Your task to perform on an android device: Search for "usb-b" on ebay, select the first entry, and add it to the cart. Image 0: 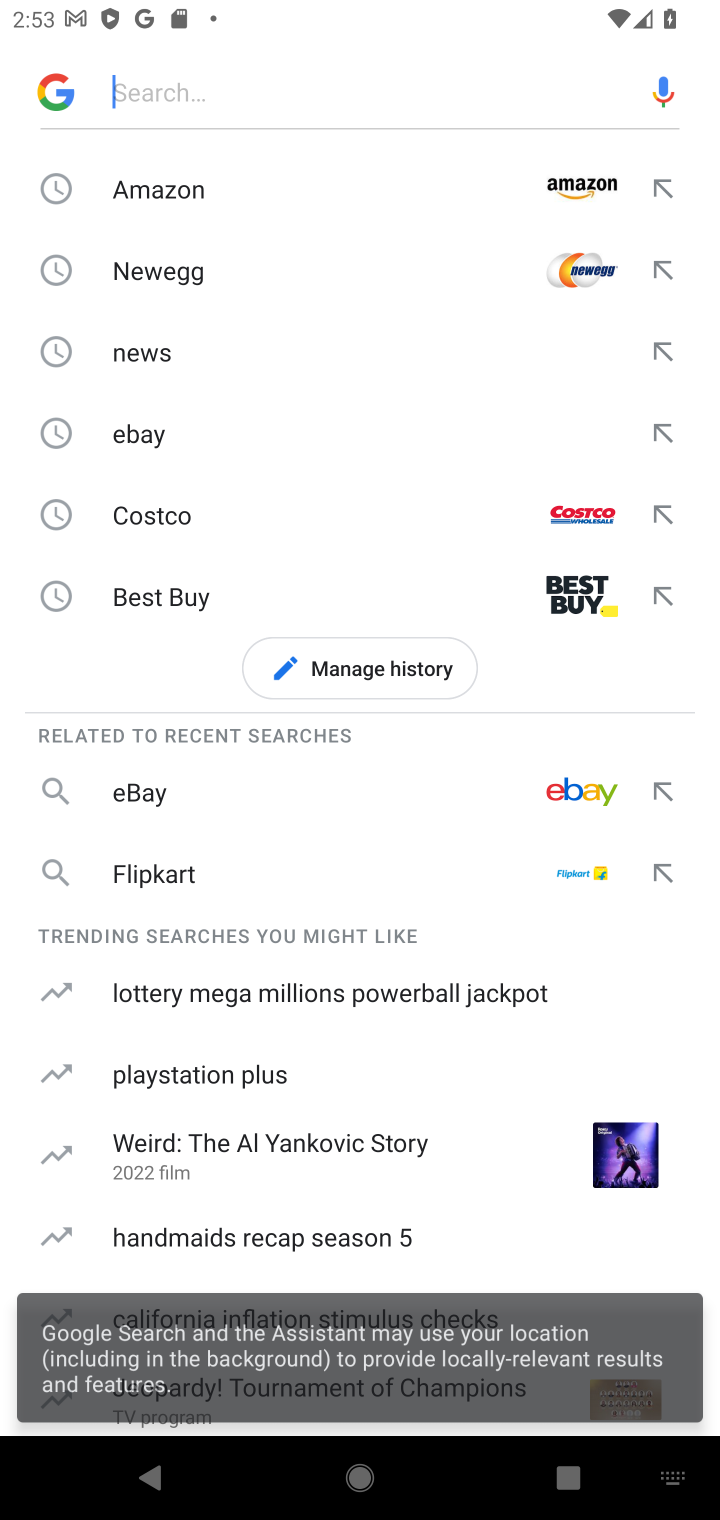
Step 0: press home button
Your task to perform on an android device: Search for "usb-b" on ebay, select the first entry, and add it to the cart. Image 1: 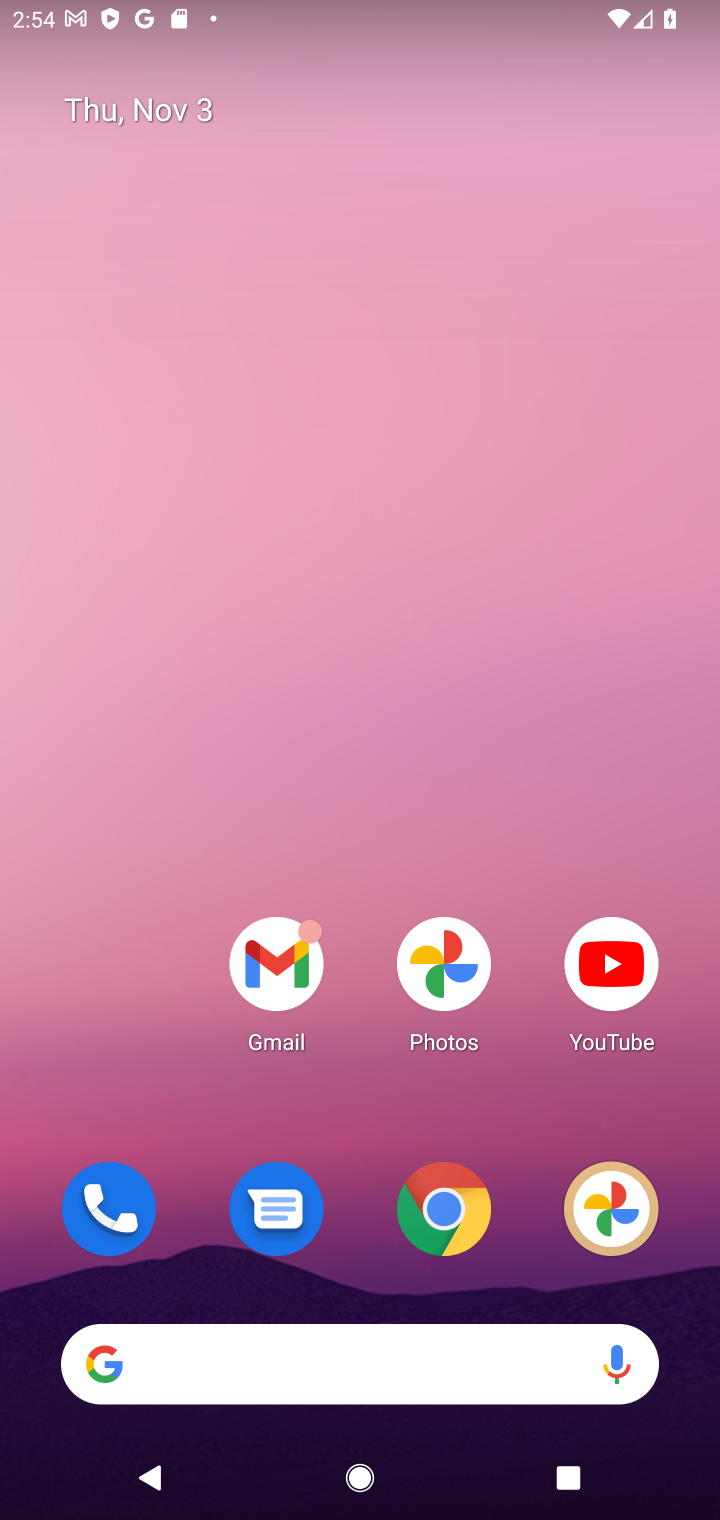
Step 1: click (460, 1199)
Your task to perform on an android device: Search for "usb-b" on ebay, select the first entry, and add it to the cart. Image 2: 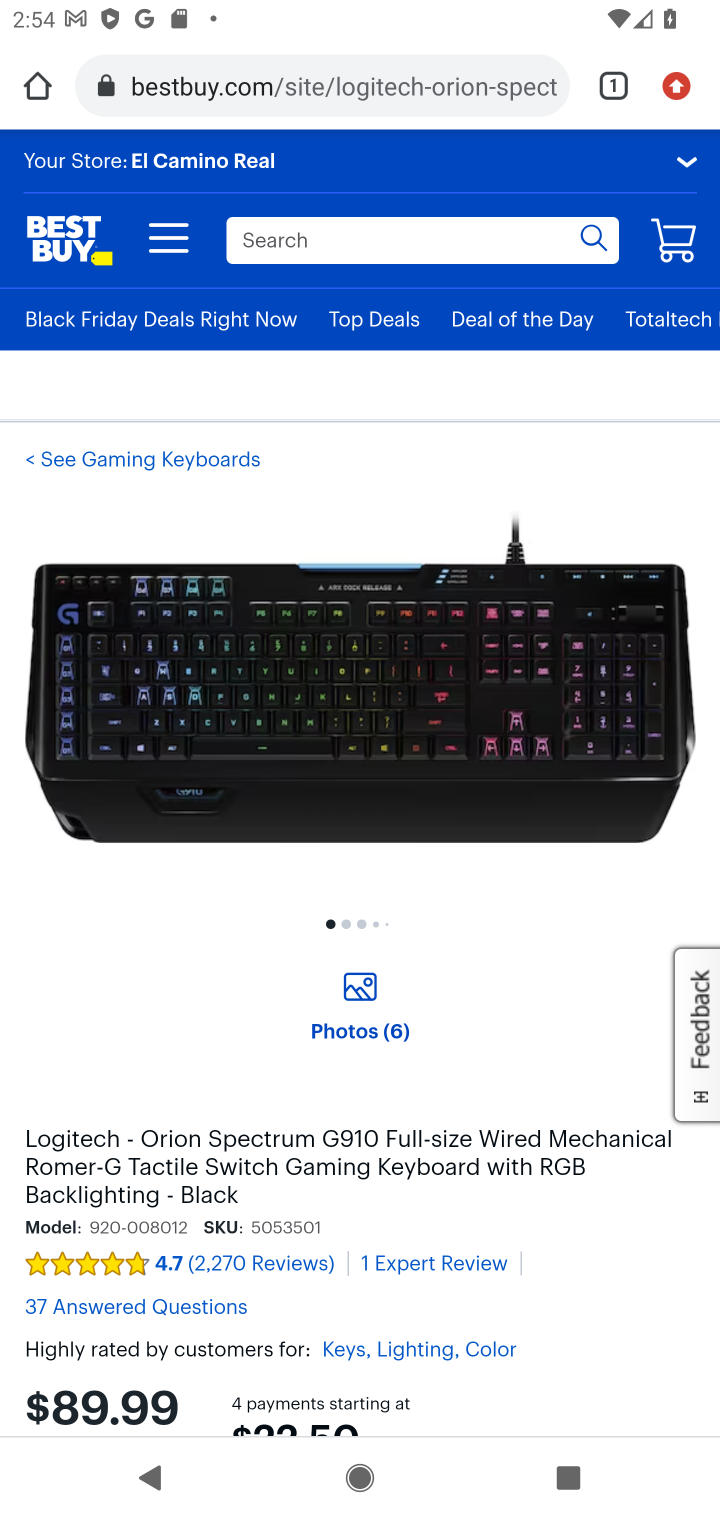
Step 2: click (431, 1217)
Your task to perform on an android device: Search for "usb-b" on ebay, select the first entry, and add it to the cart. Image 3: 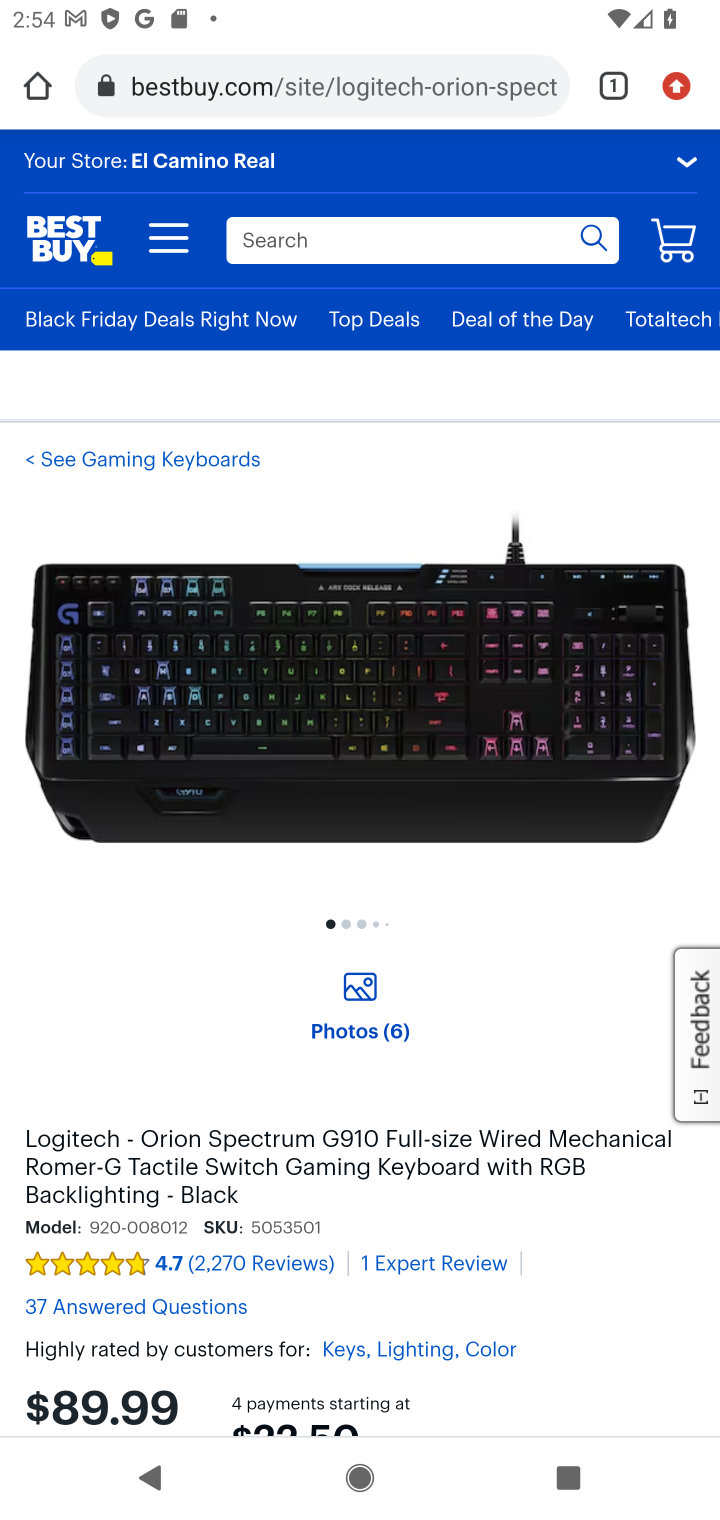
Step 3: click (340, 79)
Your task to perform on an android device: Search for "usb-b" on ebay, select the first entry, and add it to the cart. Image 4: 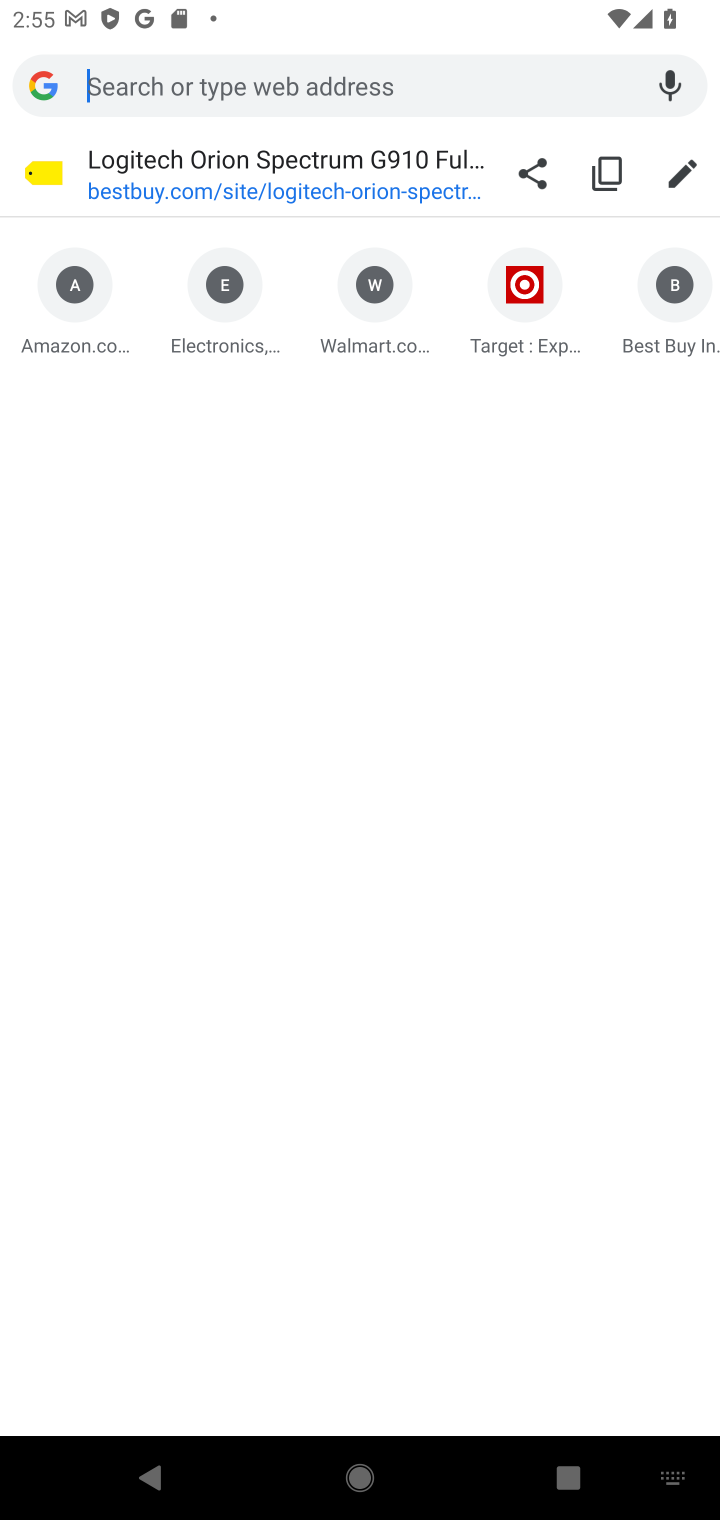
Step 4: type "ebay"
Your task to perform on an android device: Search for "usb-b" on ebay, select the first entry, and add it to the cart. Image 5: 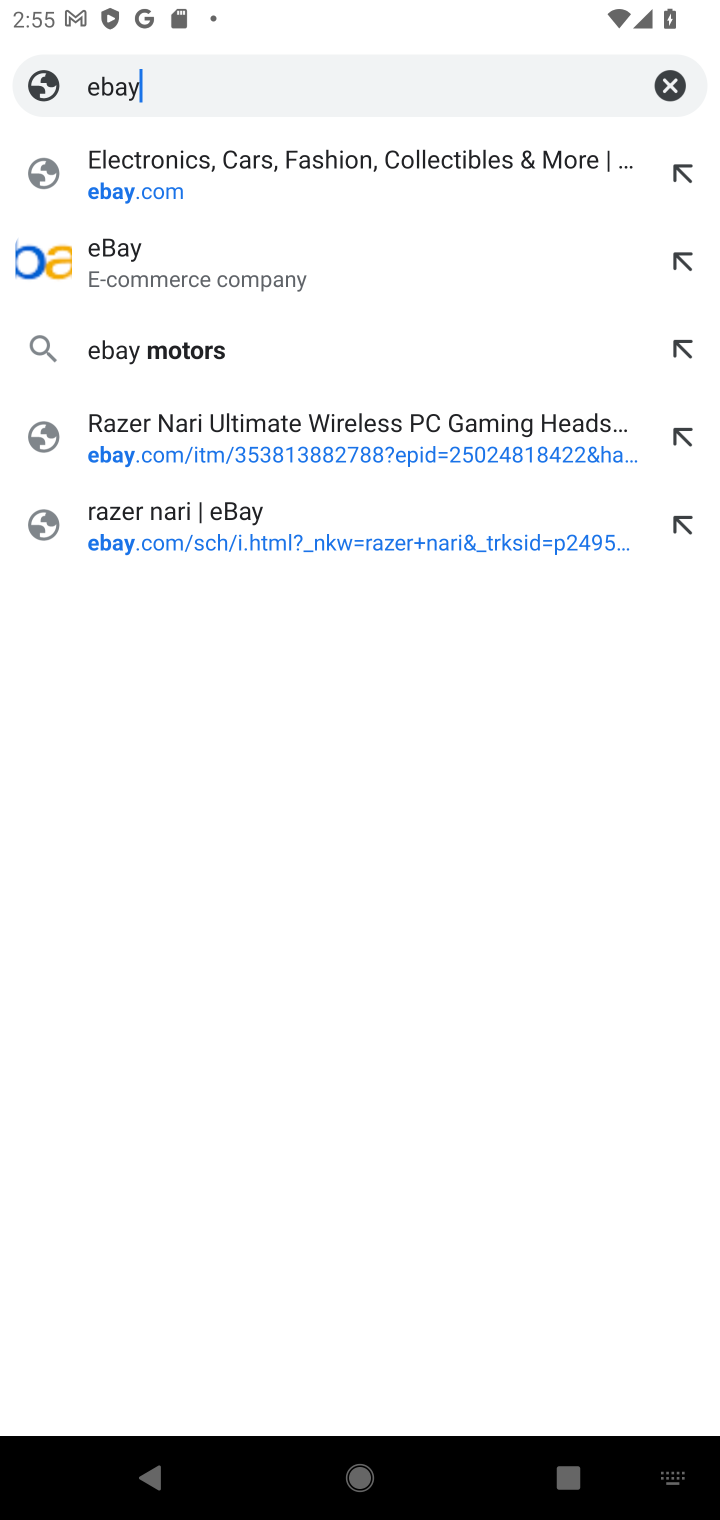
Step 5: click (200, 182)
Your task to perform on an android device: Search for "usb-b" on ebay, select the first entry, and add it to the cart. Image 6: 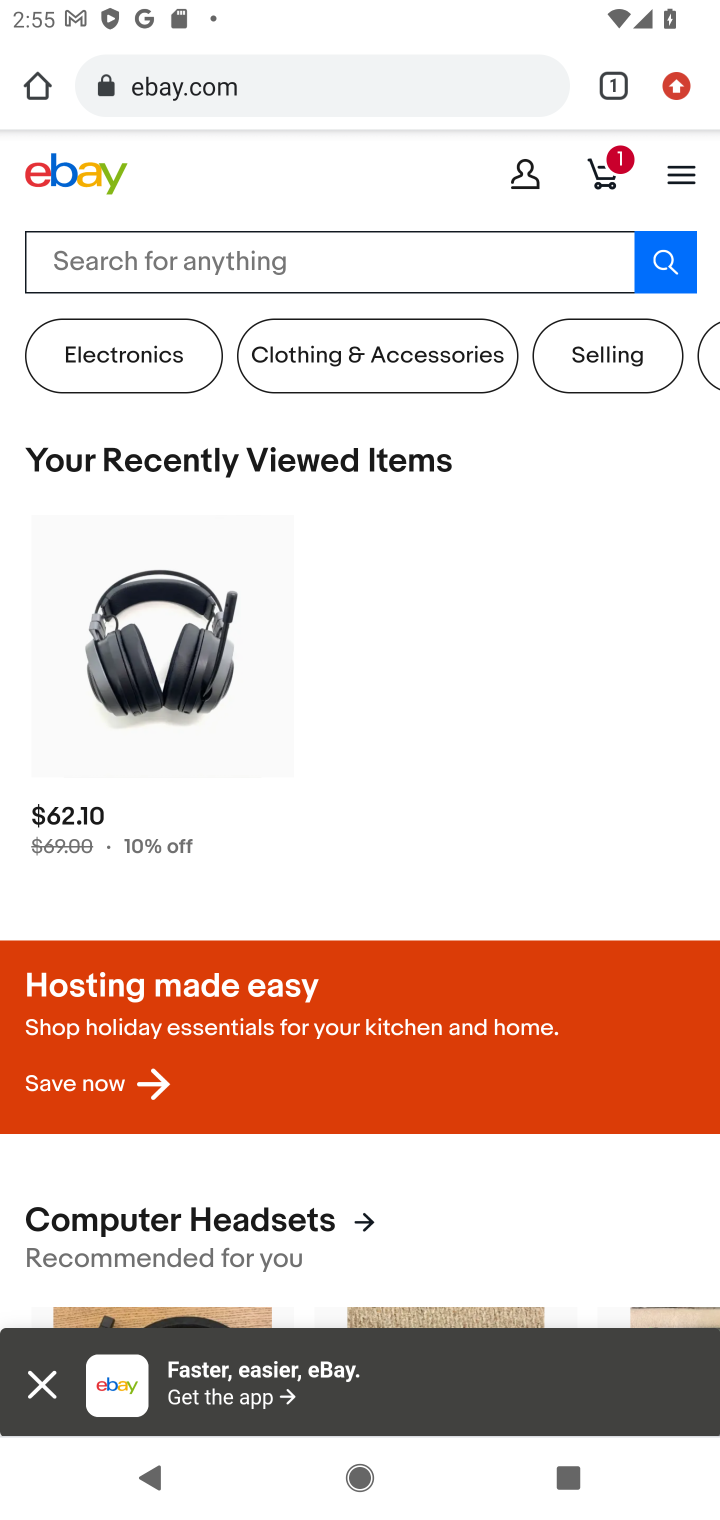
Step 6: click (405, 259)
Your task to perform on an android device: Search for "usb-b" on ebay, select the first entry, and add it to the cart. Image 7: 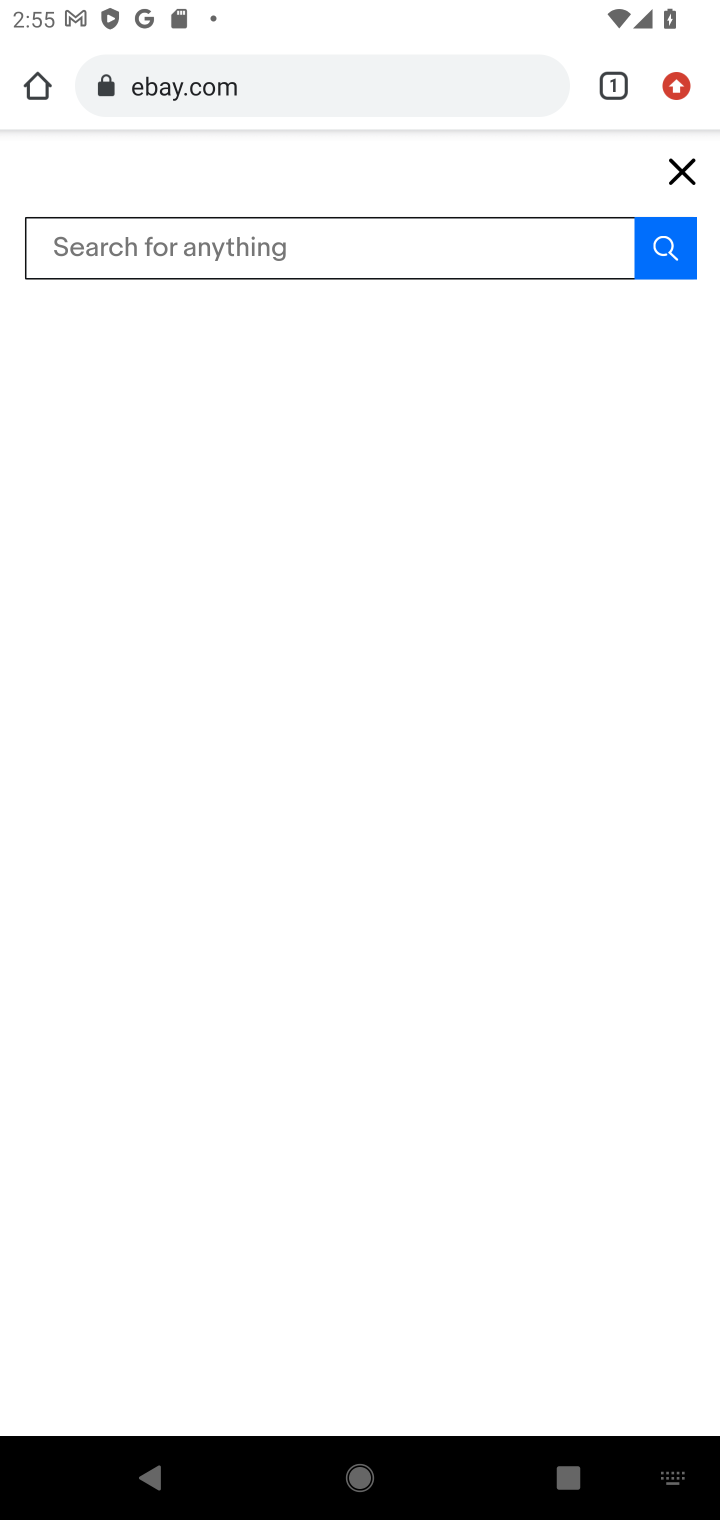
Step 7: type "usb-b"
Your task to perform on an android device: Search for "usb-b" on ebay, select the first entry, and add it to the cart. Image 8: 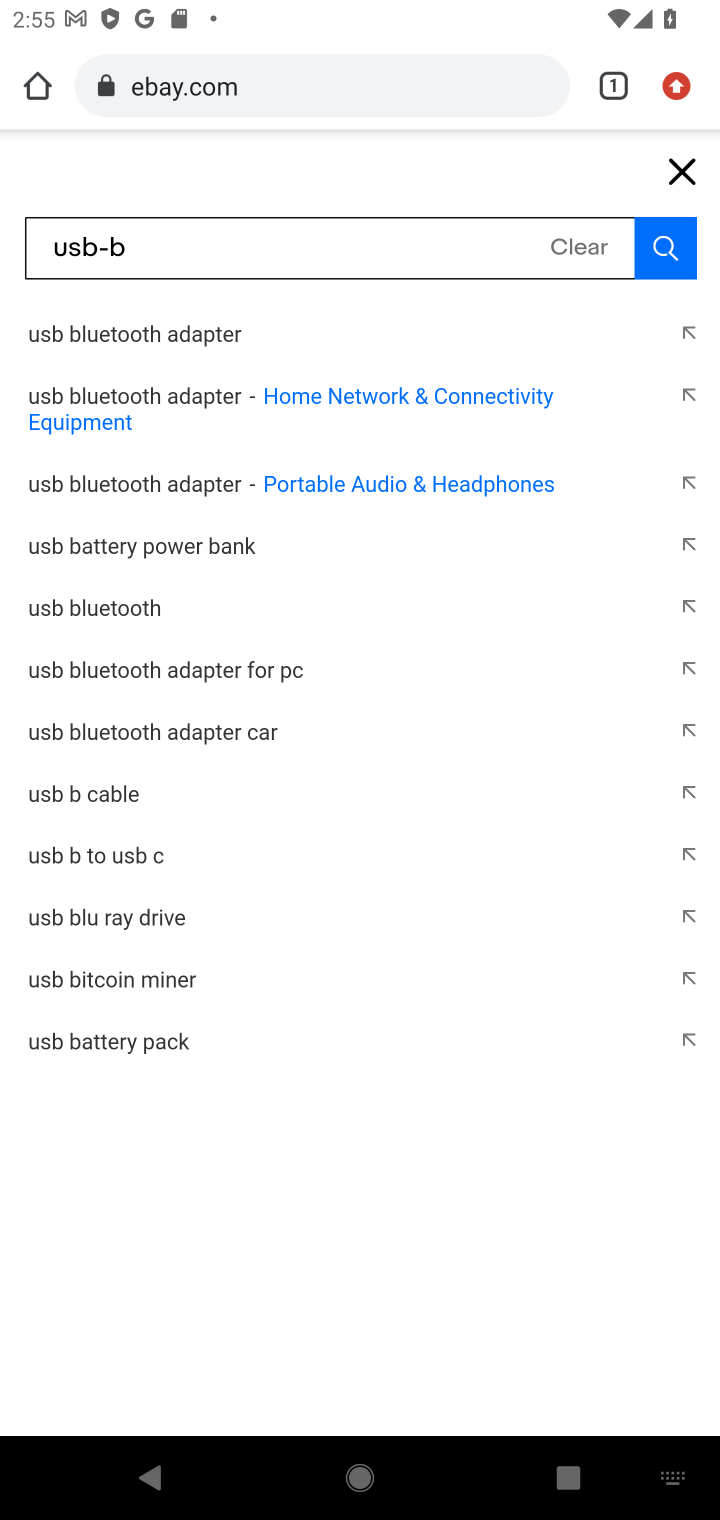
Step 8: press enter
Your task to perform on an android device: Search for "usb-b" on ebay, select the first entry, and add it to the cart. Image 9: 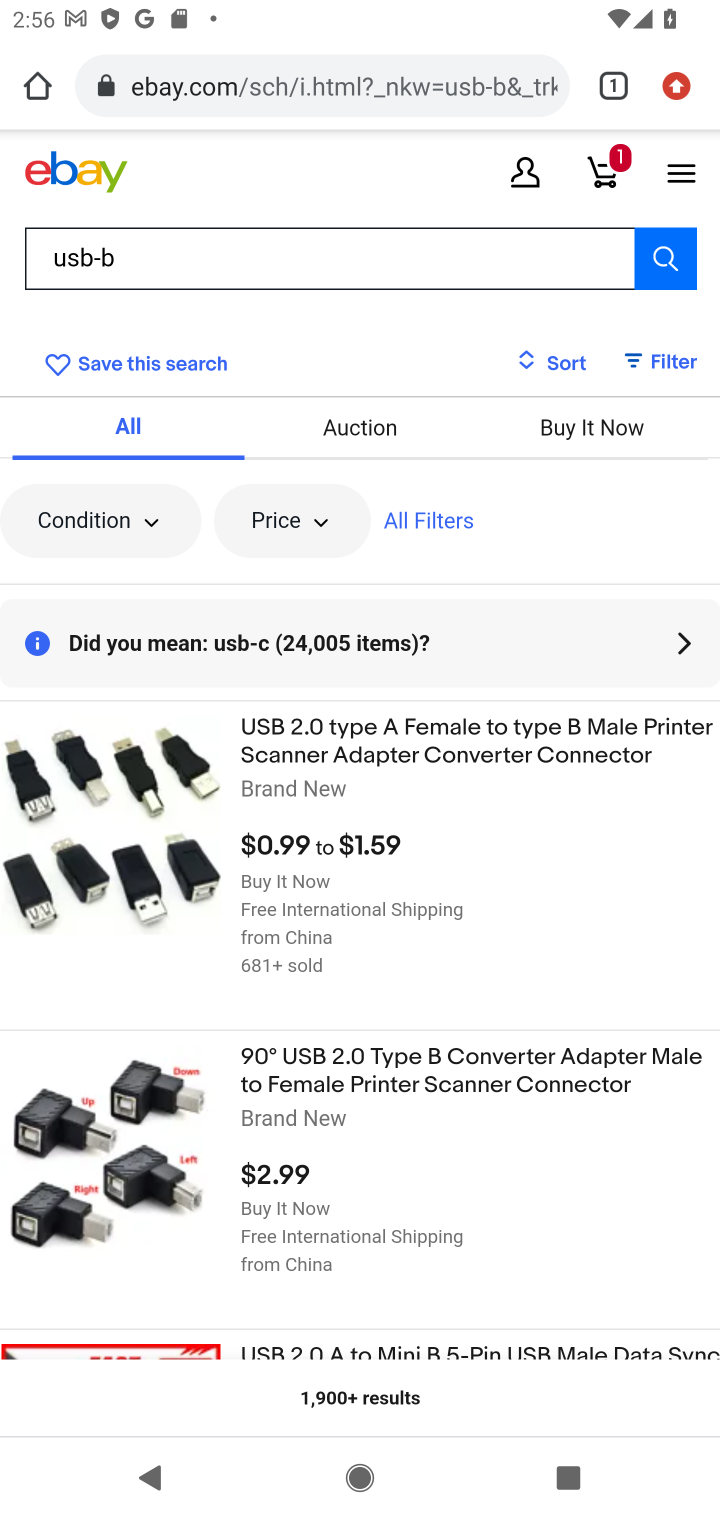
Step 9: click (145, 823)
Your task to perform on an android device: Search for "usb-b" on ebay, select the first entry, and add it to the cart. Image 10: 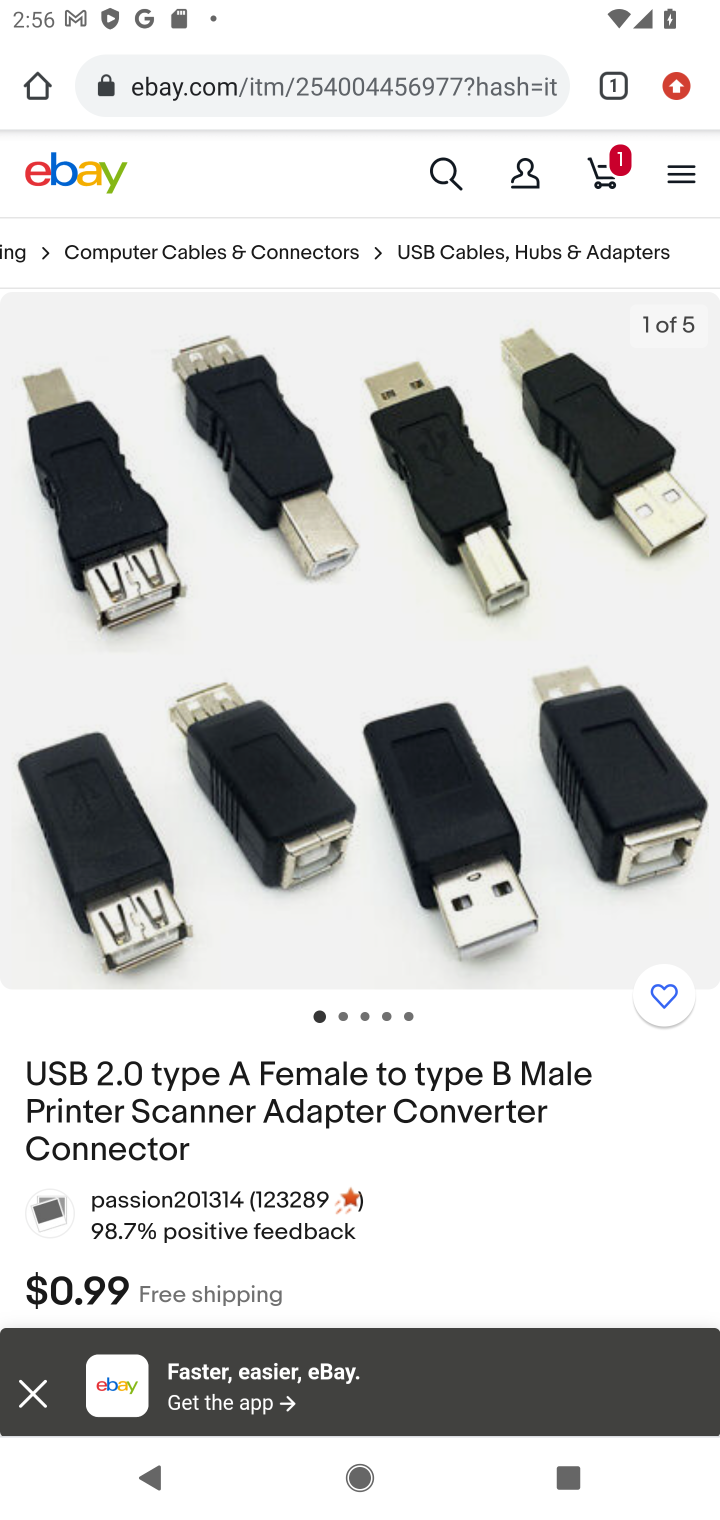
Step 10: drag from (582, 1131) to (483, 155)
Your task to perform on an android device: Search for "usb-b" on ebay, select the first entry, and add it to the cart. Image 11: 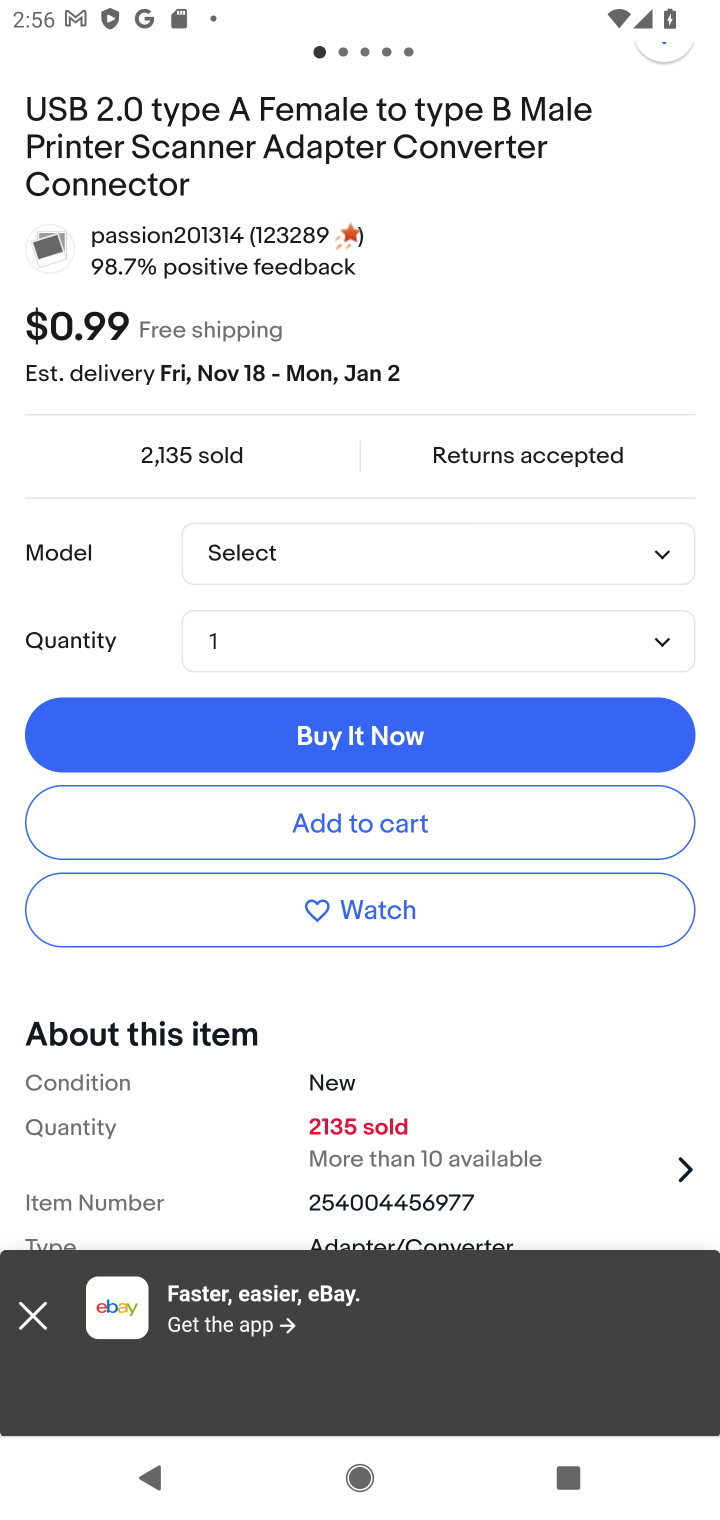
Step 11: click (423, 818)
Your task to perform on an android device: Search for "usb-b" on ebay, select the first entry, and add it to the cart. Image 12: 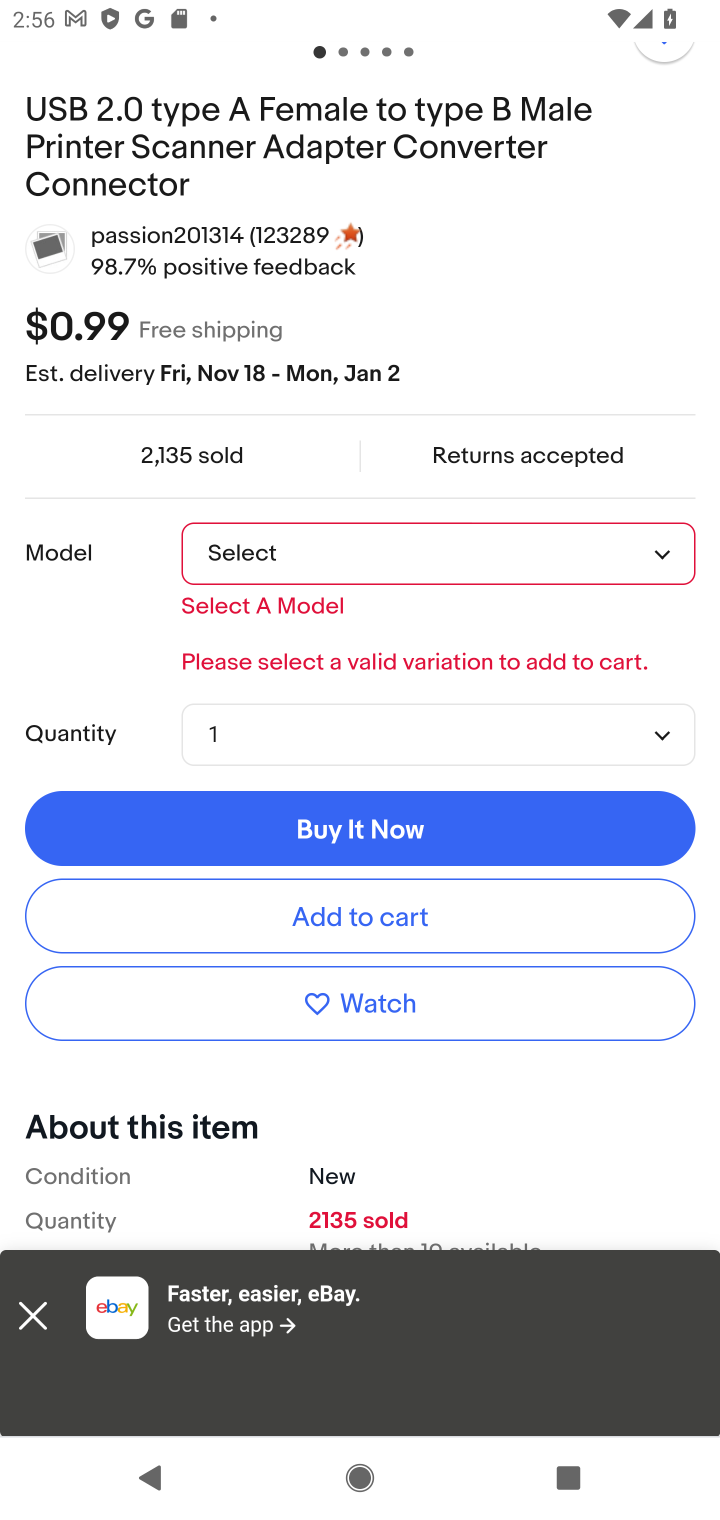
Step 12: click (309, 555)
Your task to perform on an android device: Search for "usb-b" on ebay, select the first entry, and add it to the cart. Image 13: 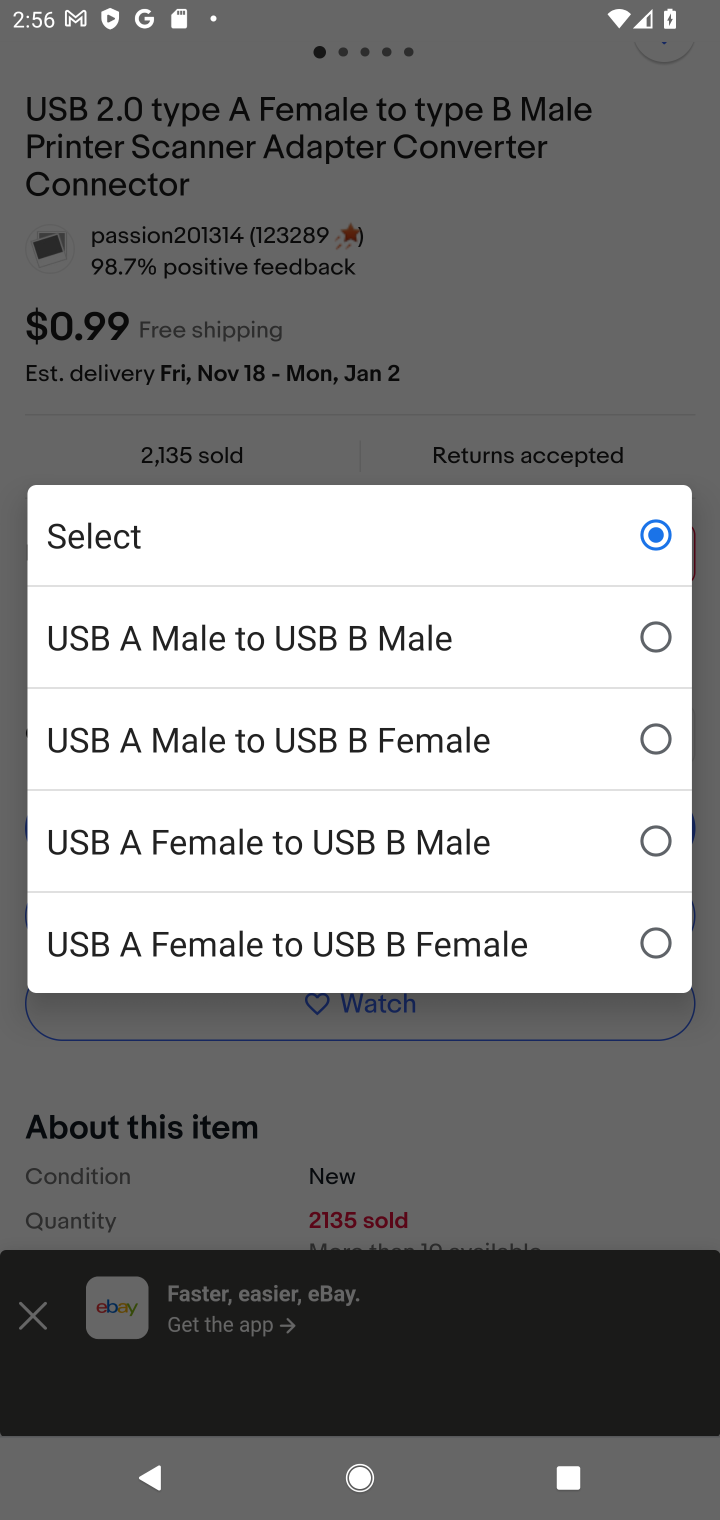
Step 13: click (488, 639)
Your task to perform on an android device: Search for "usb-b" on ebay, select the first entry, and add it to the cart. Image 14: 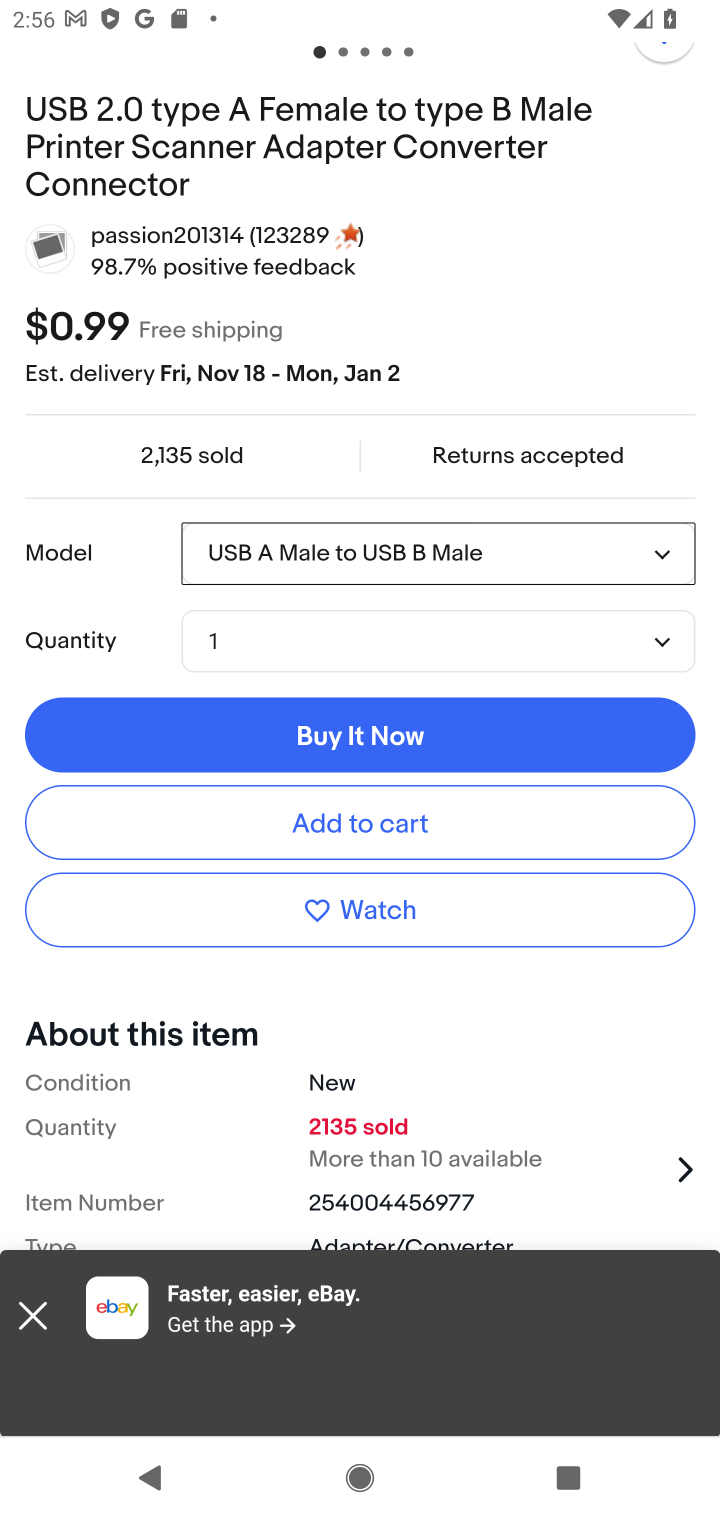
Step 14: click (457, 824)
Your task to perform on an android device: Search for "usb-b" on ebay, select the first entry, and add it to the cart. Image 15: 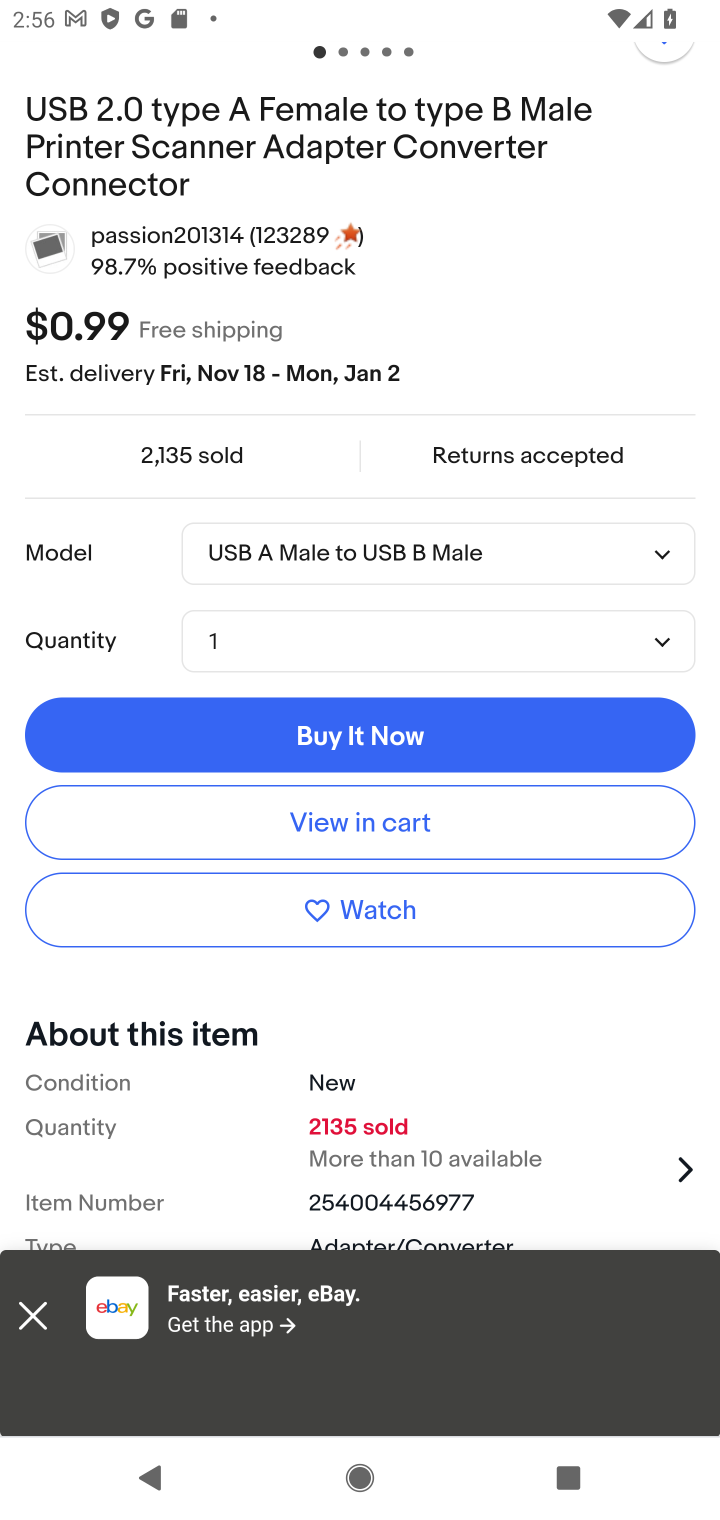
Step 15: task complete